Your task to perform on an android device: What's the weather today? Image 0: 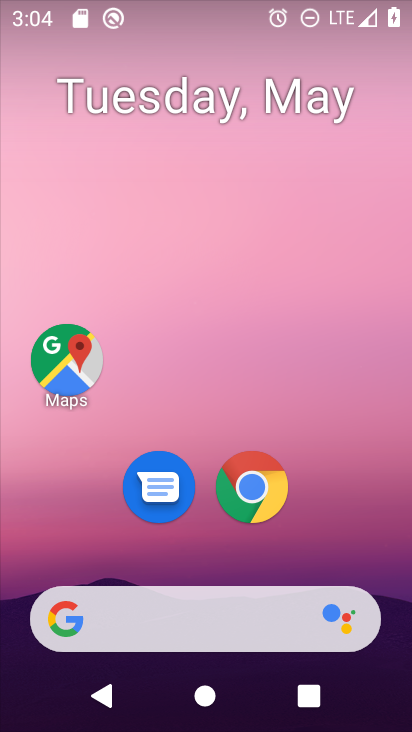
Step 0: click (159, 628)
Your task to perform on an android device: What's the weather today? Image 1: 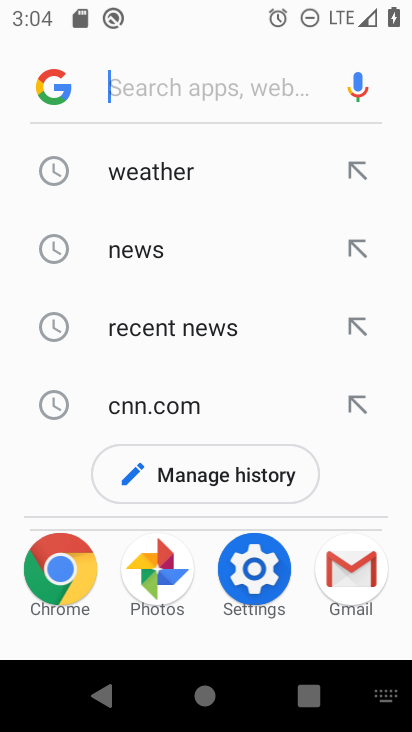
Step 1: click (123, 172)
Your task to perform on an android device: What's the weather today? Image 2: 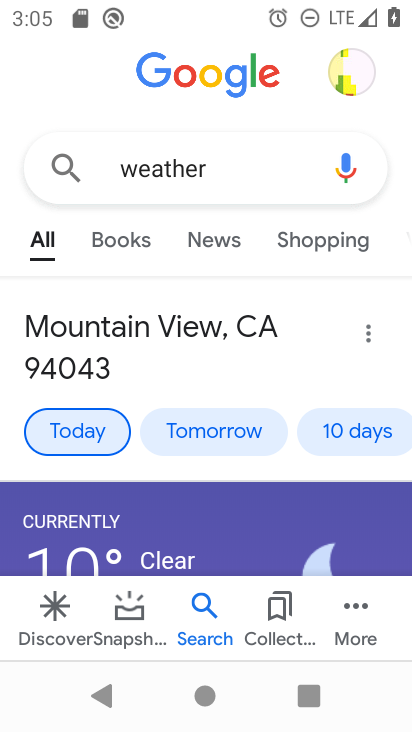
Step 2: task complete